Your task to perform on an android device: Open maps Image 0: 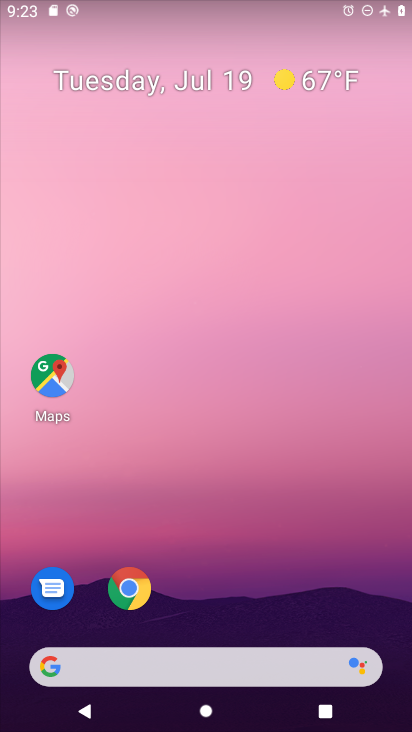
Step 0: drag from (340, 566) to (335, 159)
Your task to perform on an android device: Open maps Image 1: 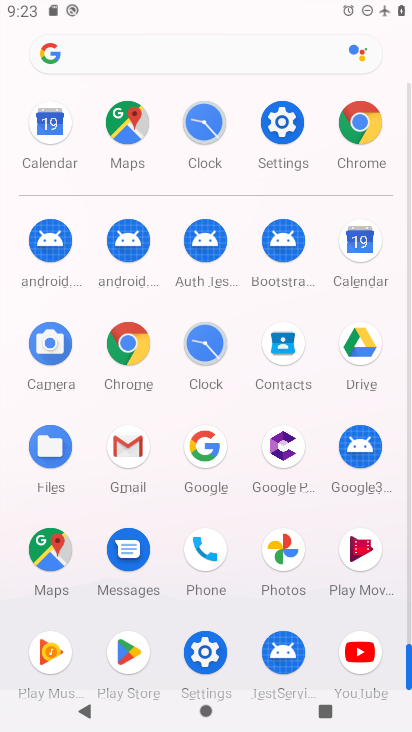
Step 1: click (45, 564)
Your task to perform on an android device: Open maps Image 2: 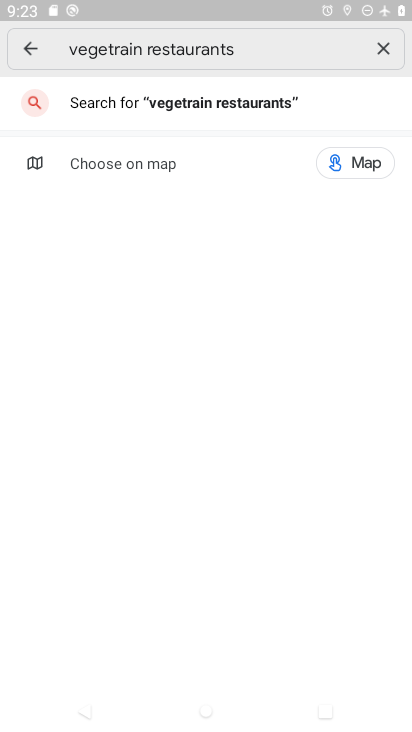
Step 2: task complete